Your task to perform on an android device: Search for vegetarian restaurants on Maps Image 0: 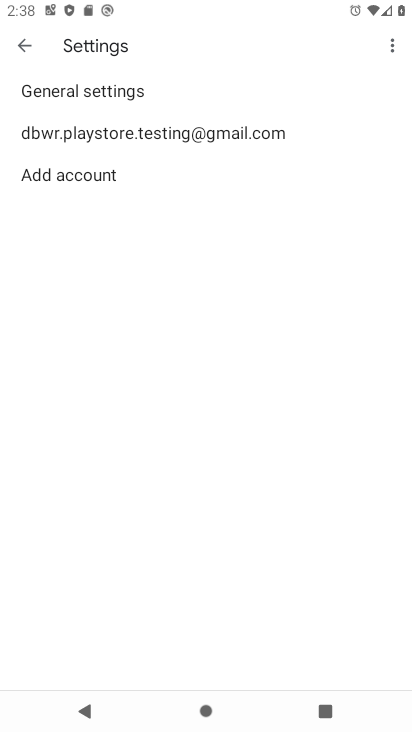
Step 0: press home button
Your task to perform on an android device: Search for vegetarian restaurants on Maps Image 1: 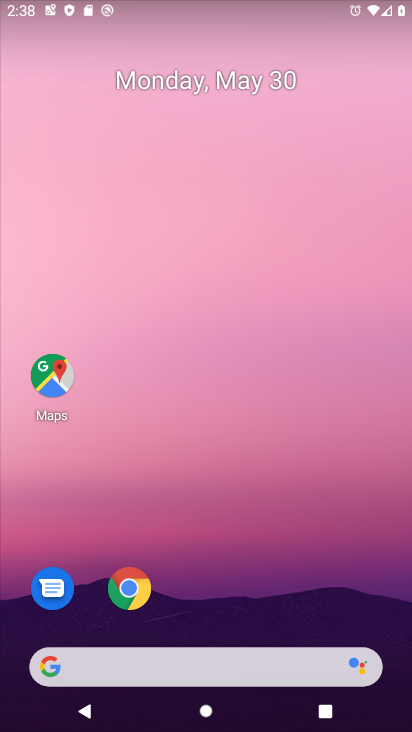
Step 1: click (67, 368)
Your task to perform on an android device: Search for vegetarian restaurants on Maps Image 2: 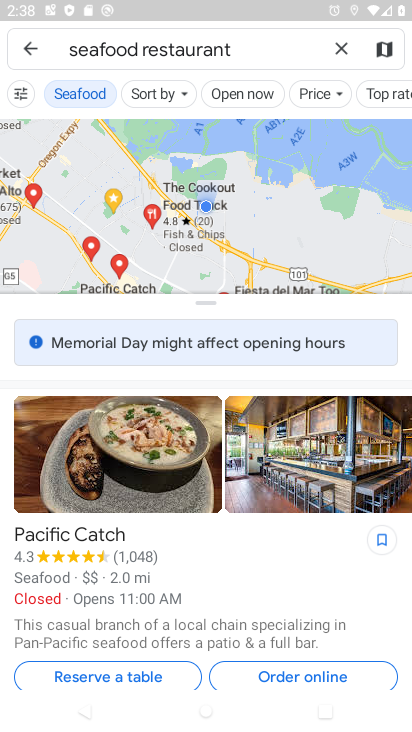
Step 2: click (340, 47)
Your task to perform on an android device: Search for vegetarian restaurants on Maps Image 3: 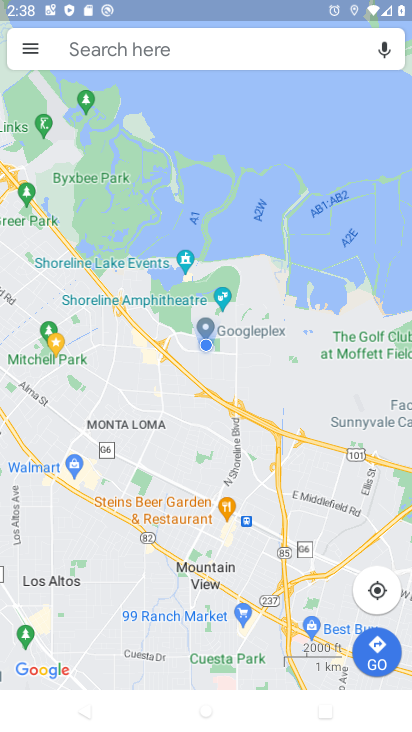
Step 3: click (222, 46)
Your task to perform on an android device: Search for vegetarian restaurants on Maps Image 4: 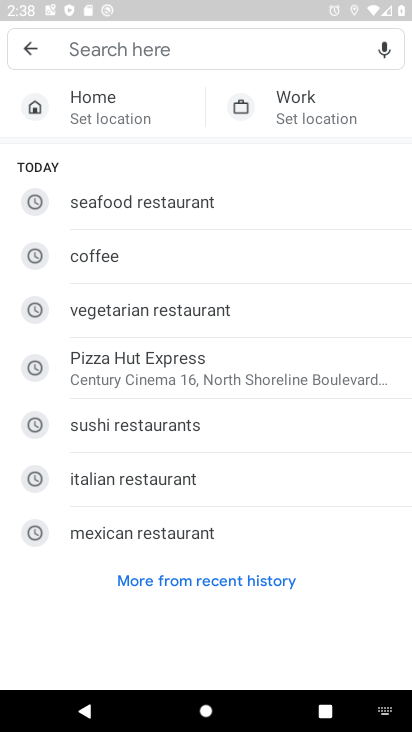
Step 4: click (178, 312)
Your task to perform on an android device: Search for vegetarian restaurants on Maps Image 5: 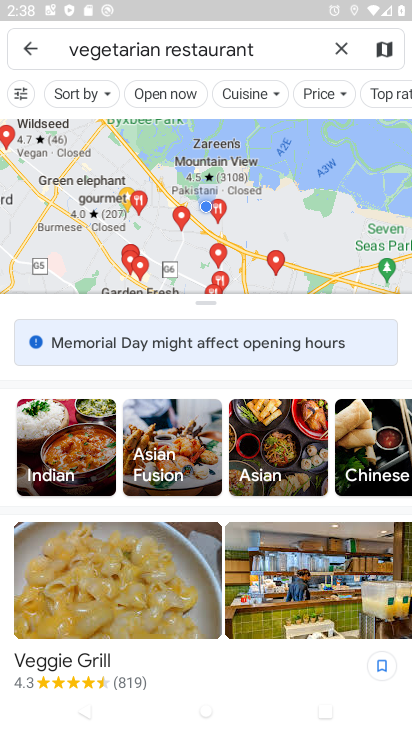
Step 5: task complete